Your task to perform on an android device: turn off wifi Image 0: 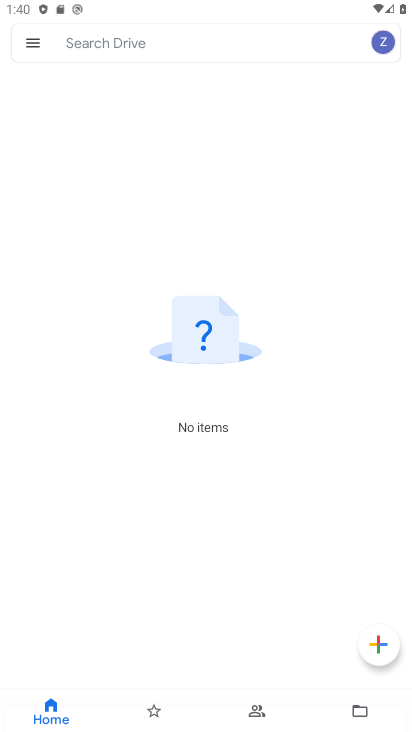
Step 0: press home button
Your task to perform on an android device: turn off wifi Image 1: 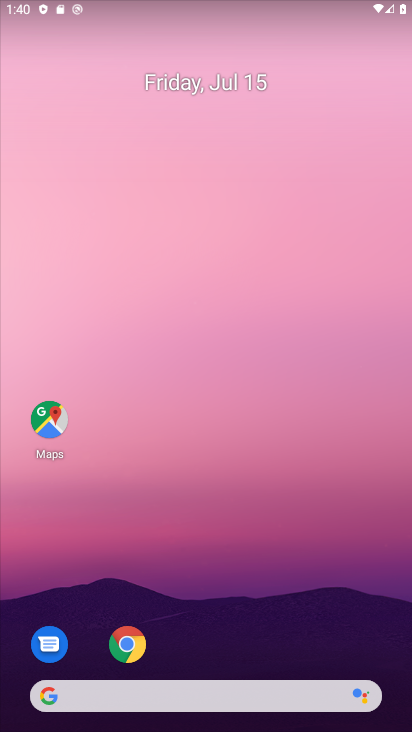
Step 1: drag from (221, 3) to (230, 578)
Your task to perform on an android device: turn off wifi Image 2: 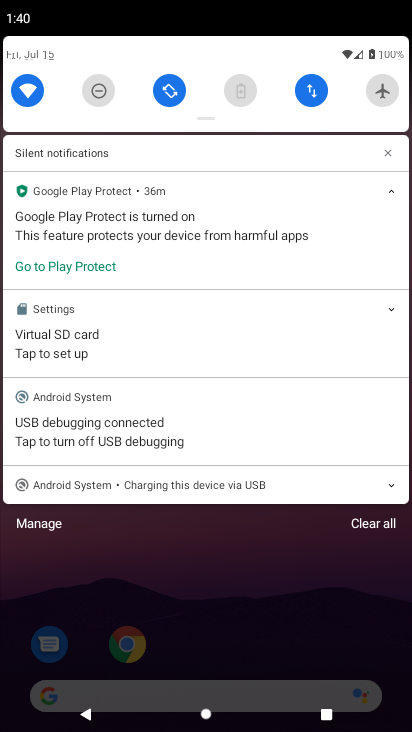
Step 2: click (26, 88)
Your task to perform on an android device: turn off wifi Image 3: 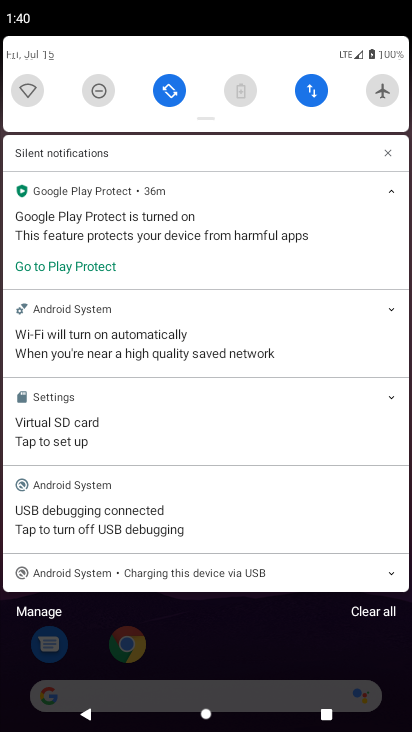
Step 3: task complete